Your task to perform on an android device: change alarm snooze length Image 0: 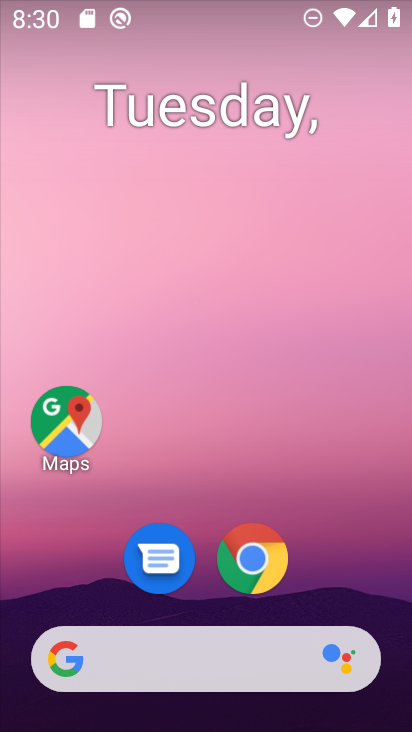
Step 0: drag from (189, 608) to (262, 179)
Your task to perform on an android device: change alarm snooze length Image 1: 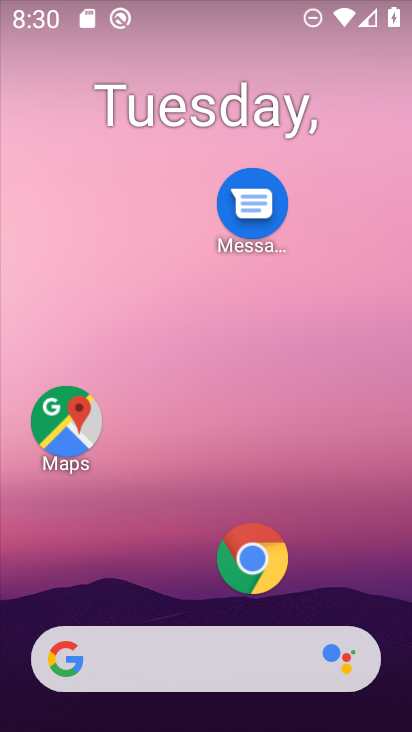
Step 1: drag from (194, 607) to (192, 197)
Your task to perform on an android device: change alarm snooze length Image 2: 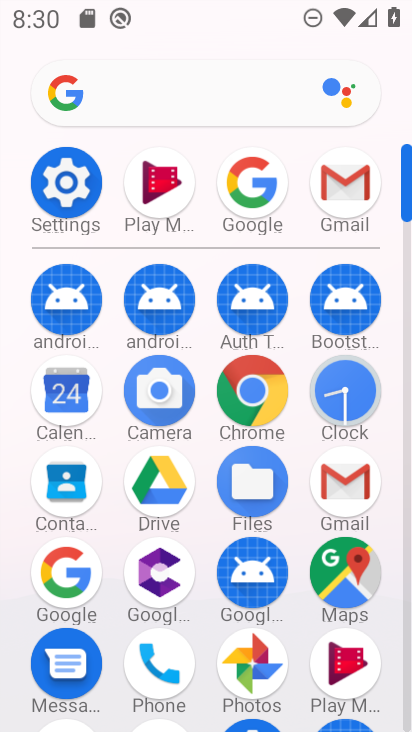
Step 2: click (51, 191)
Your task to perform on an android device: change alarm snooze length Image 3: 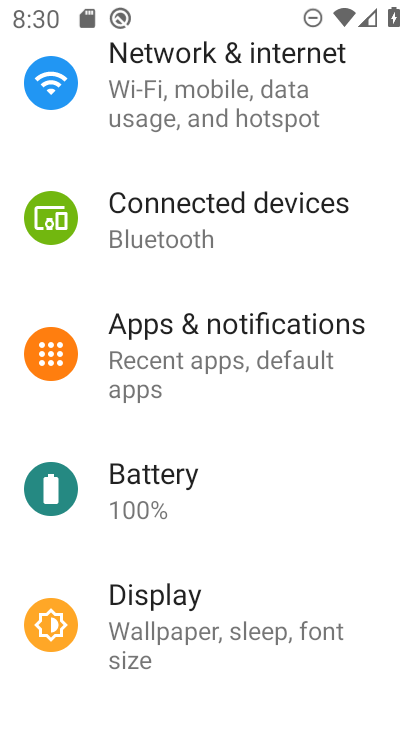
Step 3: drag from (208, 227) to (275, 284)
Your task to perform on an android device: change alarm snooze length Image 4: 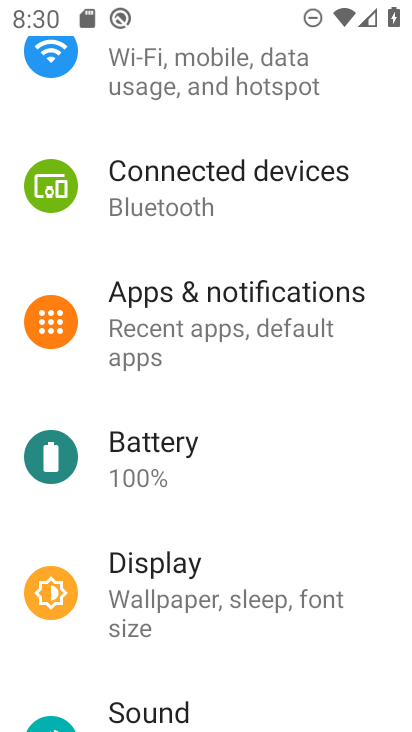
Step 4: drag from (211, 599) to (285, 387)
Your task to perform on an android device: change alarm snooze length Image 5: 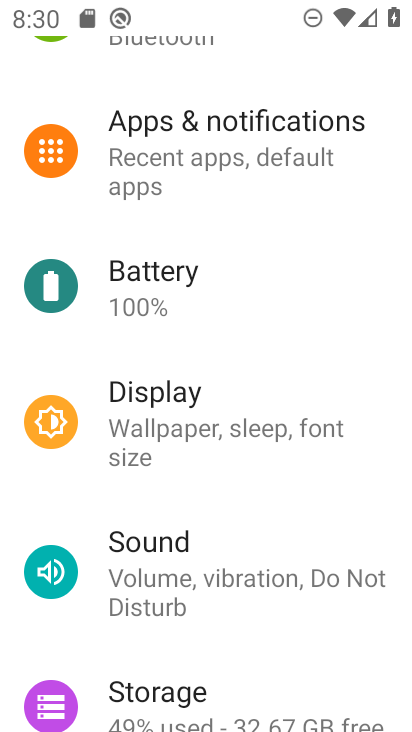
Step 5: press home button
Your task to perform on an android device: change alarm snooze length Image 6: 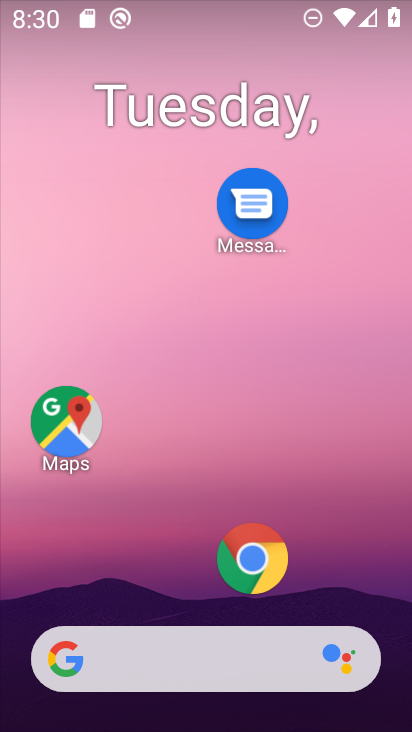
Step 6: drag from (170, 572) to (196, 178)
Your task to perform on an android device: change alarm snooze length Image 7: 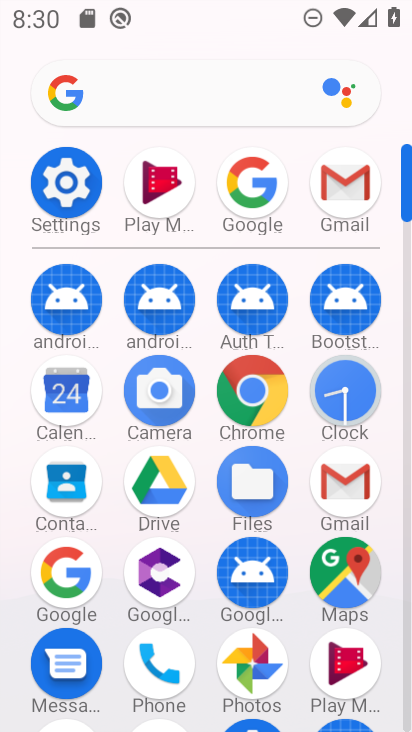
Step 7: click (334, 399)
Your task to perform on an android device: change alarm snooze length Image 8: 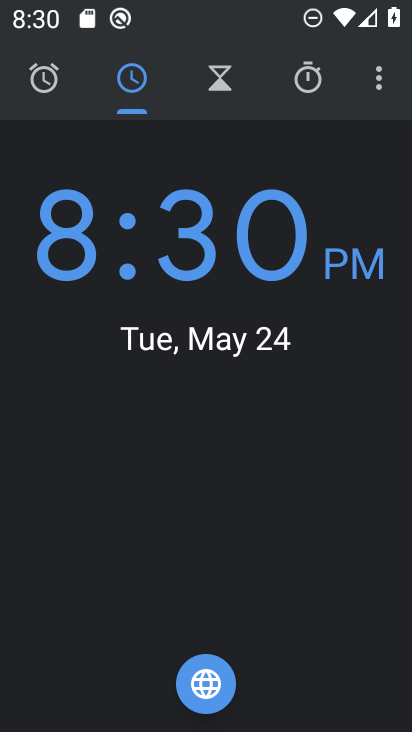
Step 8: click (383, 83)
Your task to perform on an android device: change alarm snooze length Image 9: 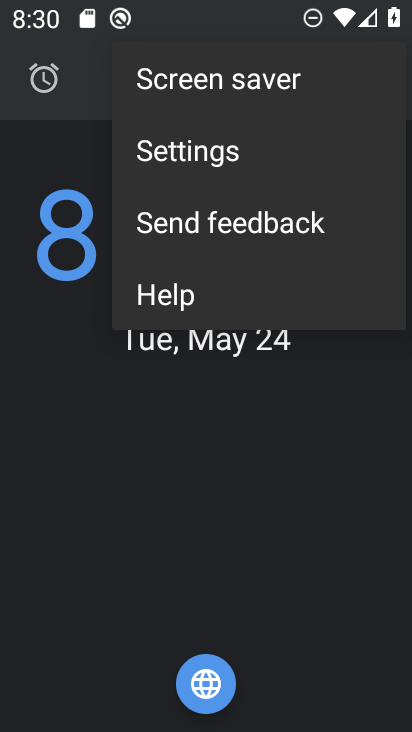
Step 9: click (293, 137)
Your task to perform on an android device: change alarm snooze length Image 10: 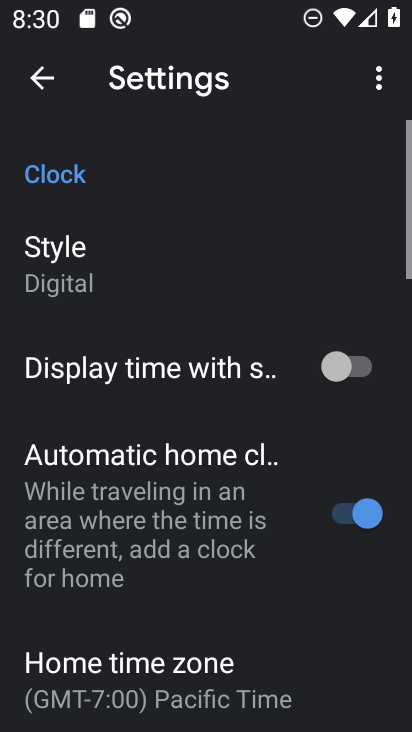
Step 10: drag from (235, 620) to (282, 181)
Your task to perform on an android device: change alarm snooze length Image 11: 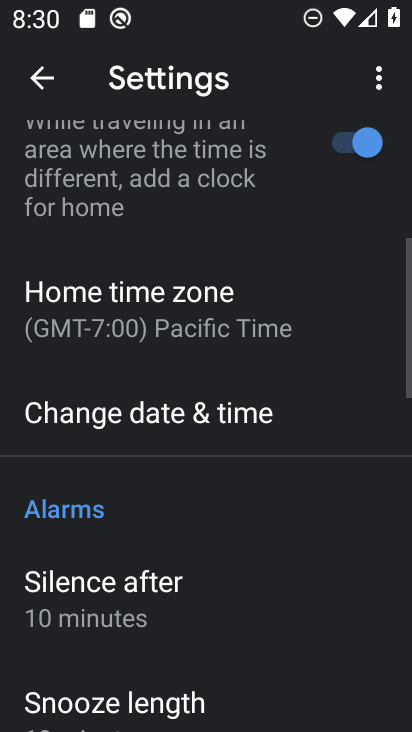
Step 11: drag from (219, 646) to (257, 340)
Your task to perform on an android device: change alarm snooze length Image 12: 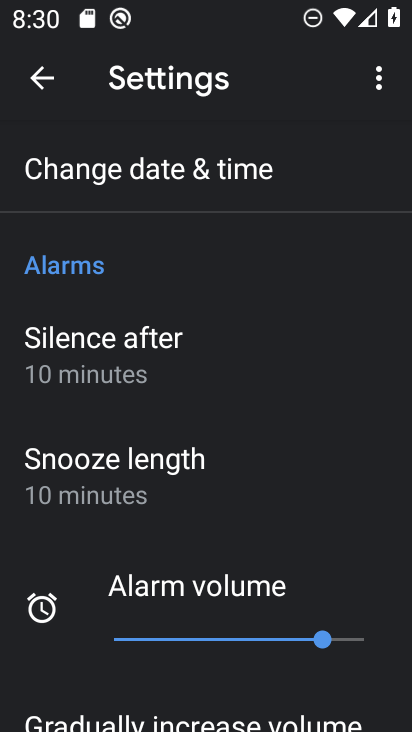
Step 12: click (154, 501)
Your task to perform on an android device: change alarm snooze length Image 13: 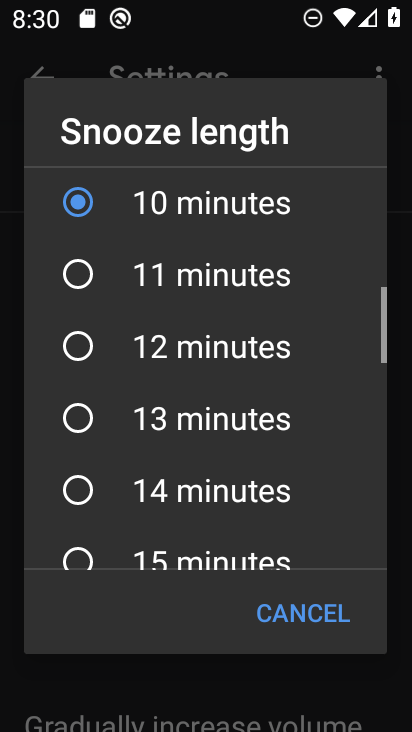
Step 13: click (154, 501)
Your task to perform on an android device: change alarm snooze length Image 14: 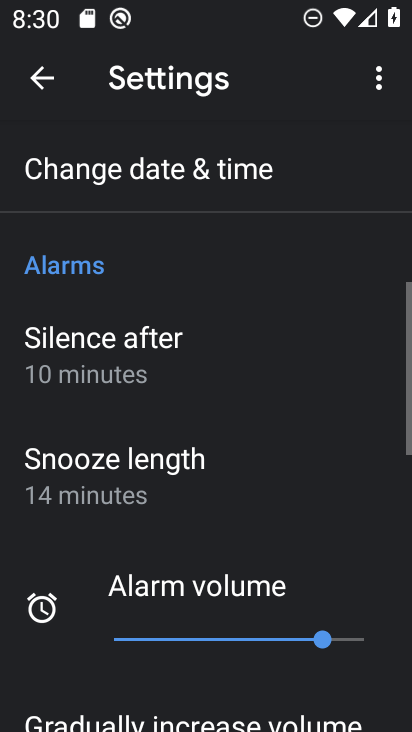
Step 14: task complete